Your task to perform on an android device: Find coffee shops on Maps Image 0: 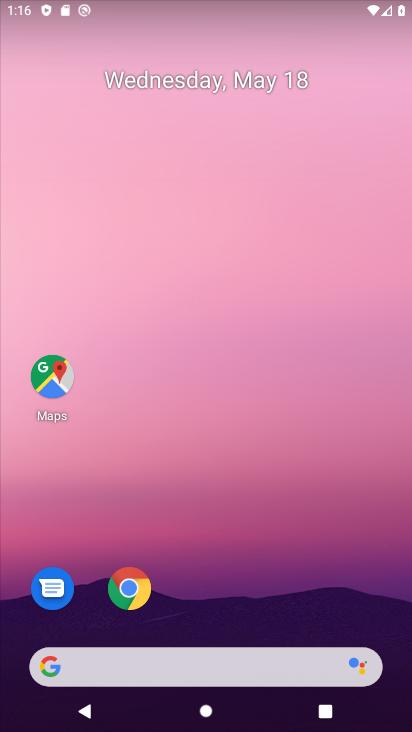
Step 0: drag from (260, 614) to (234, 117)
Your task to perform on an android device: Find coffee shops on Maps Image 1: 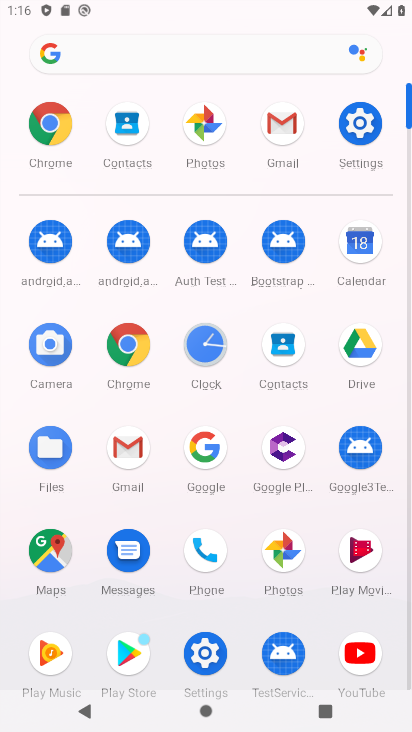
Step 1: click (47, 554)
Your task to perform on an android device: Find coffee shops on Maps Image 2: 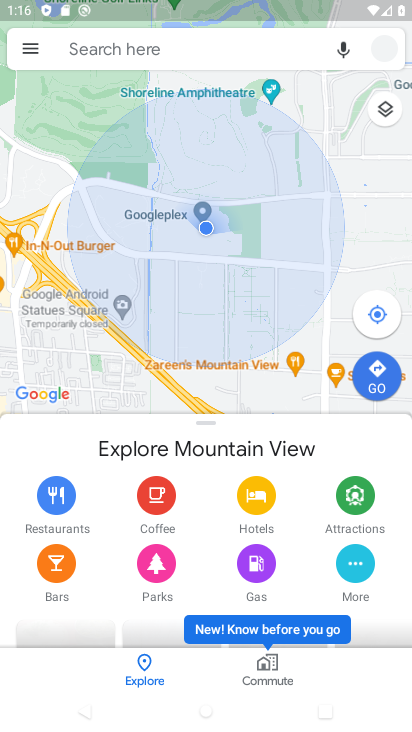
Step 2: click (171, 43)
Your task to perform on an android device: Find coffee shops on Maps Image 3: 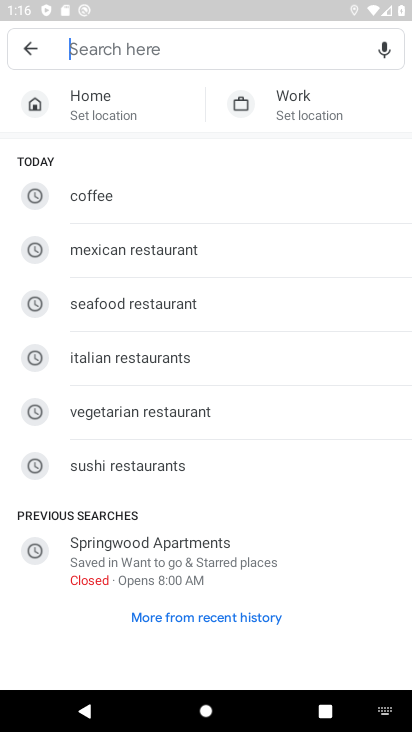
Step 3: type "coffee"
Your task to perform on an android device: Find coffee shops on Maps Image 4: 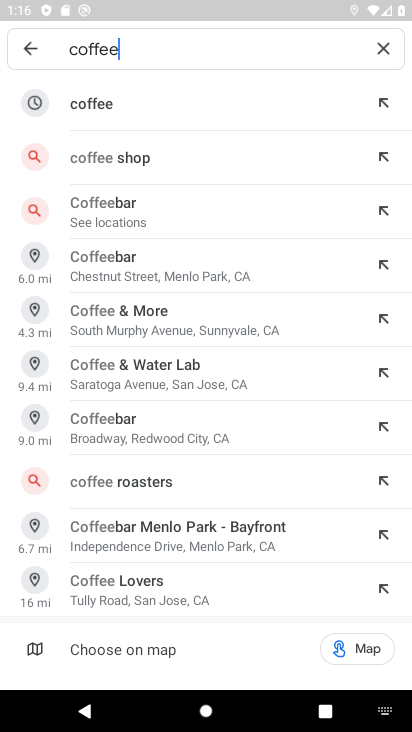
Step 4: click (192, 94)
Your task to perform on an android device: Find coffee shops on Maps Image 5: 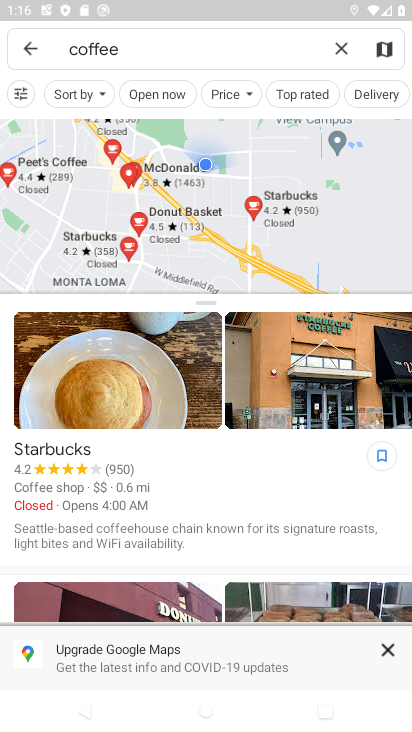
Step 5: task complete